Your task to perform on an android device: turn on translation in the chrome app Image 0: 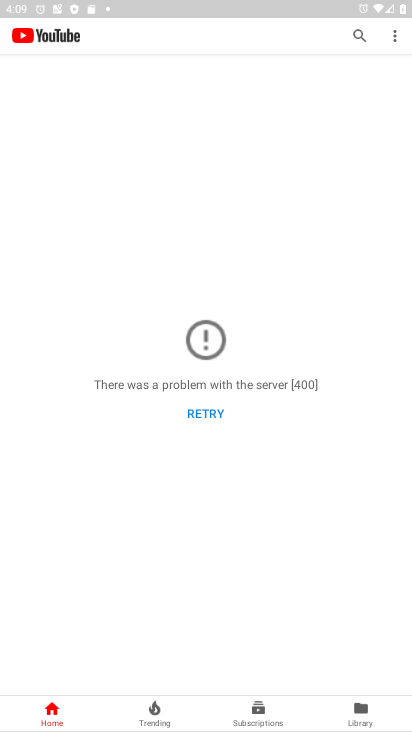
Step 0: press home button
Your task to perform on an android device: turn on translation in the chrome app Image 1: 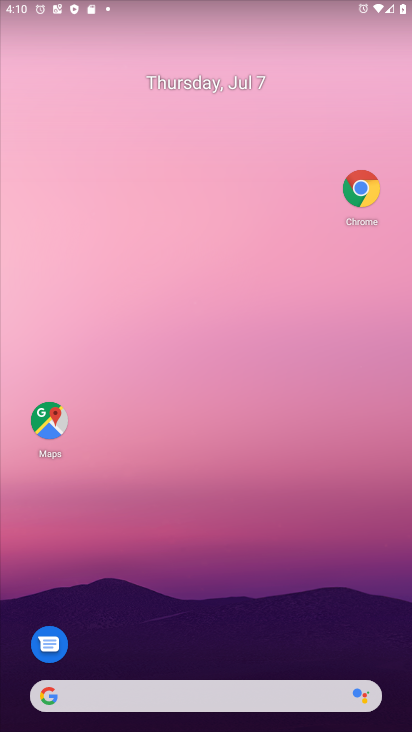
Step 1: drag from (253, 663) to (322, 627)
Your task to perform on an android device: turn on translation in the chrome app Image 2: 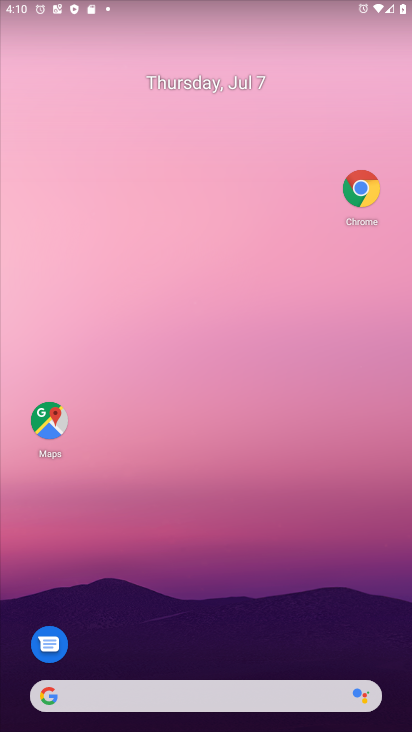
Step 2: click (354, 164)
Your task to perform on an android device: turn on translation in the chrome app Image 3: 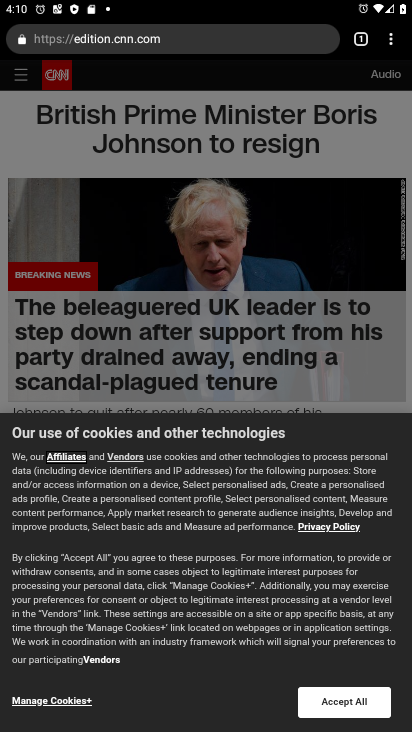
Step 3: drag from (387, 39) to (237, 490)
Your task to perform on an android device: turn on translation in the chrome app Image 4: 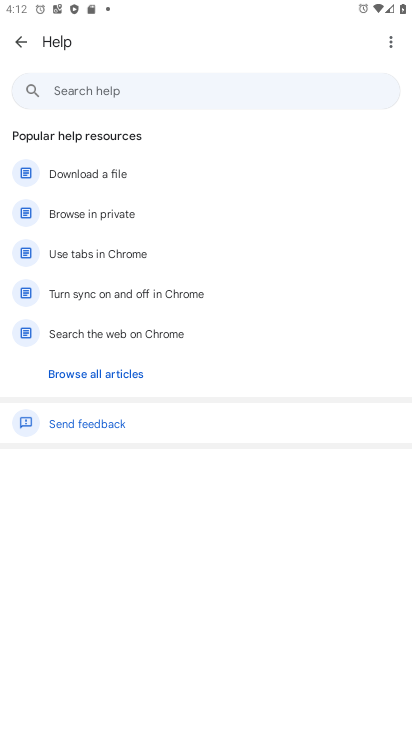
Step 4: click (24, 56)
Your task to perform on an android device: turn on translation in the chrome app Image 5: 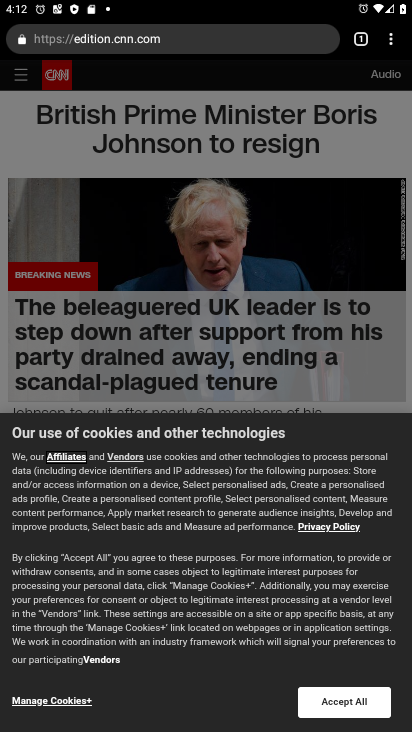
Step 5: drag from (390, 42) to (248, 484)
Your task to perform on an android device: turn on translation in the chrome app Image 6: 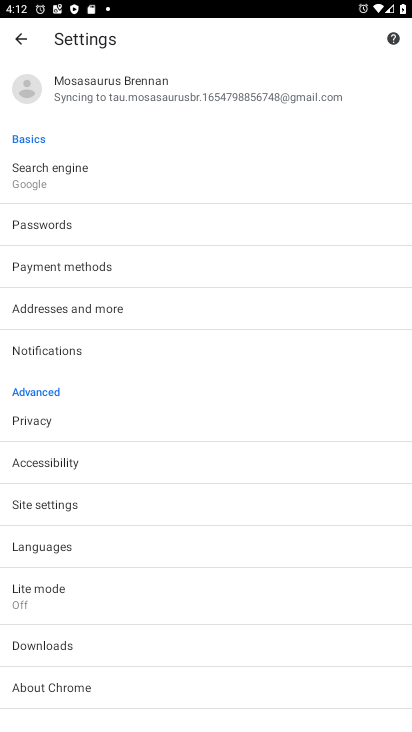
Step 6: click (146, 547)
Your task to perform on an android device: turn on translation in the chrome app Image 7: 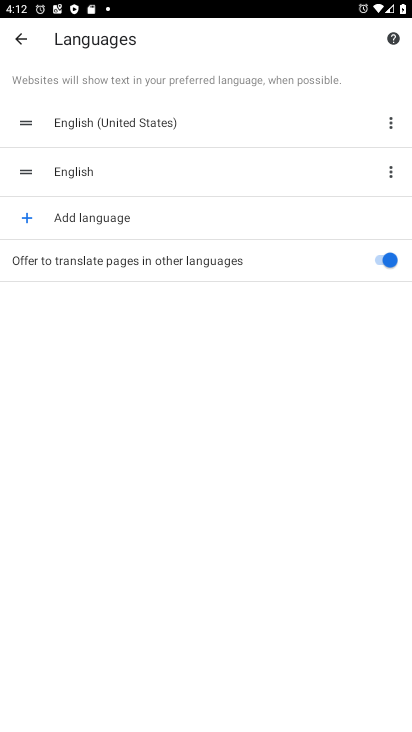
Step 7: task complete